Your task to perform on an android device: toggle sleep mode Image 0: 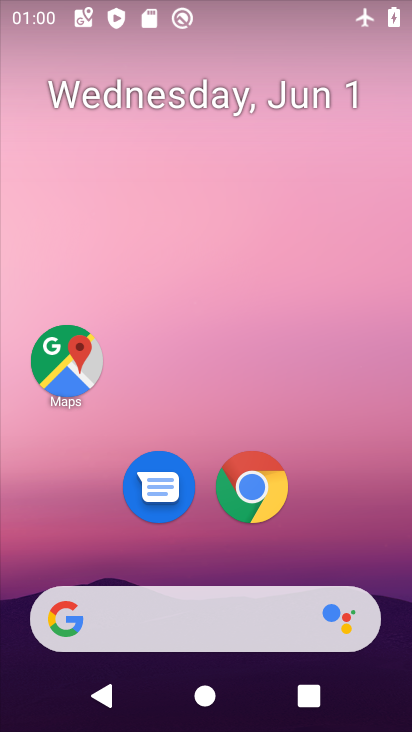
Step 0: drag from (278, 516) to (285, 198)
Your task to perform on an android device: toggle sleep mode Image 1: 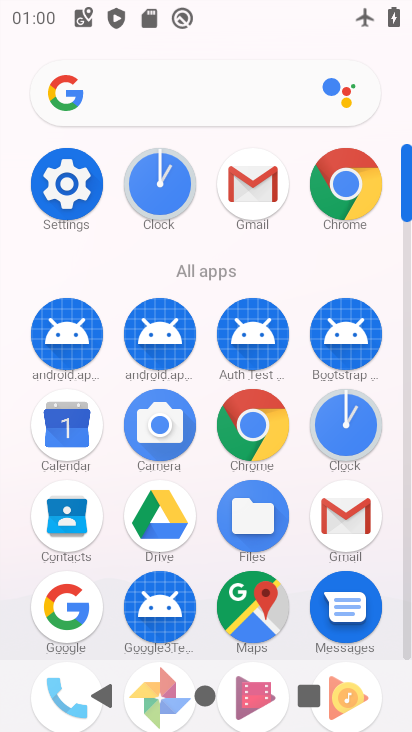
Step 1: click (41, 171)
Your task to perform on an android device: toggle sleep mode Image 2: 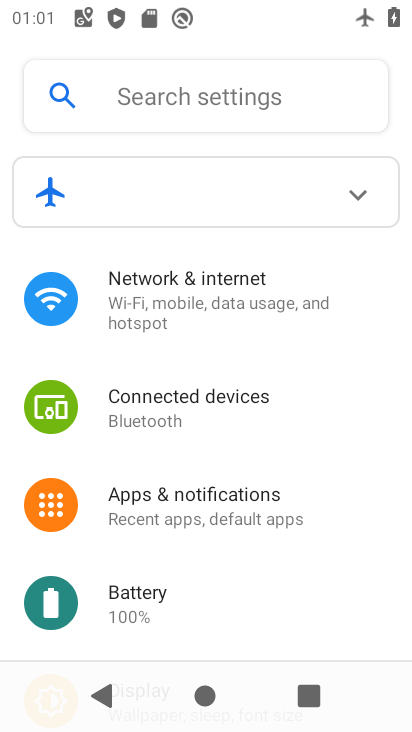
Step 2: task complete